Your task to perform on an android device: Search for sushi restaurants on Maps Image 0: 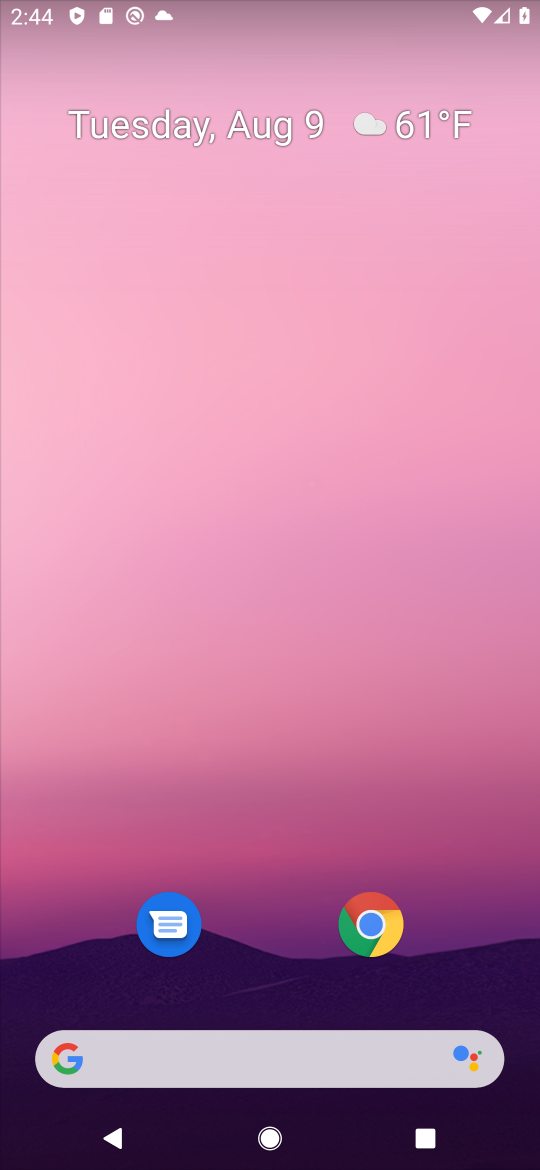
Step 0: drag from (277, 884) to (315, 0)
Your task to perform on an android device: Search for sushi restaurants on Maps Image 1: 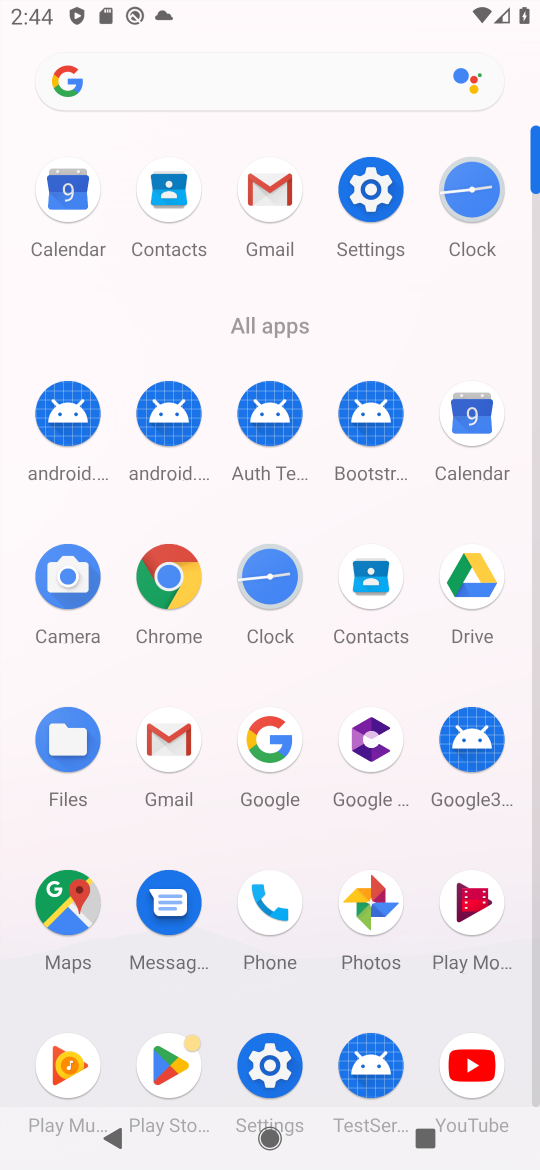
Step 1: click (75, 913)
Your task to perform on an android device: Search for sushi restaurants on Maps Image 2: 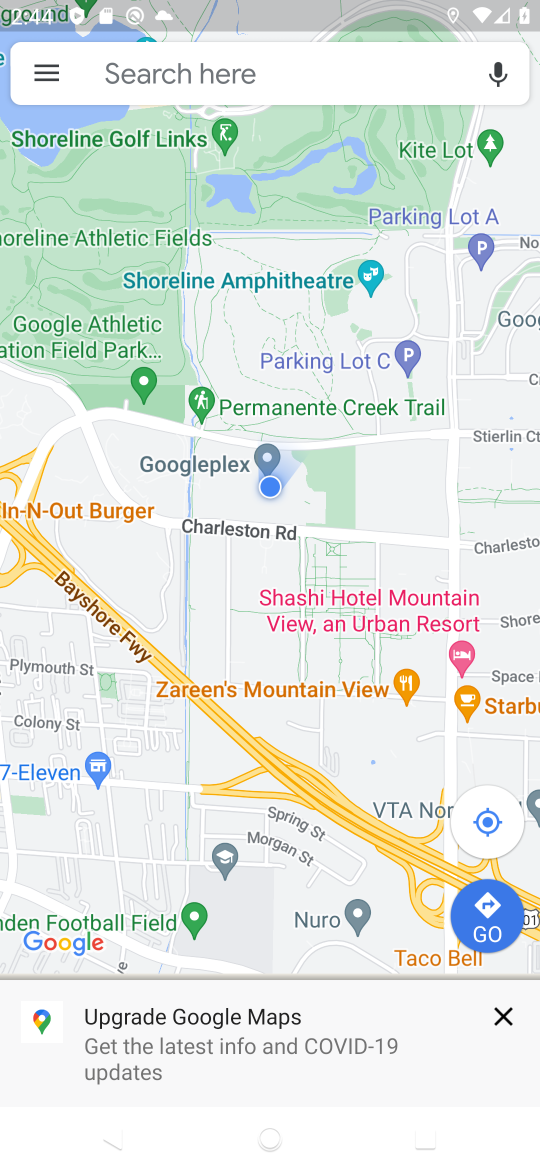
Step 2: click (335, 79)
Your task to perform on an android device: Search for sushi restaurants on Maps Image 3: 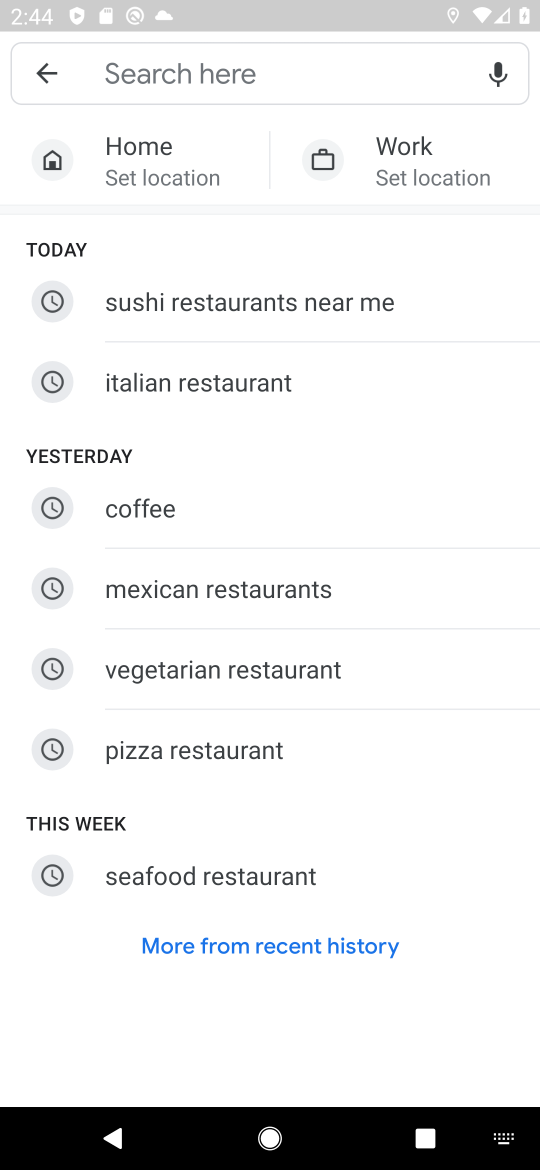
Step 3: click (279, 298)
Your task to perform on an android device: Search for sushi restaurants on Maps Image 4: 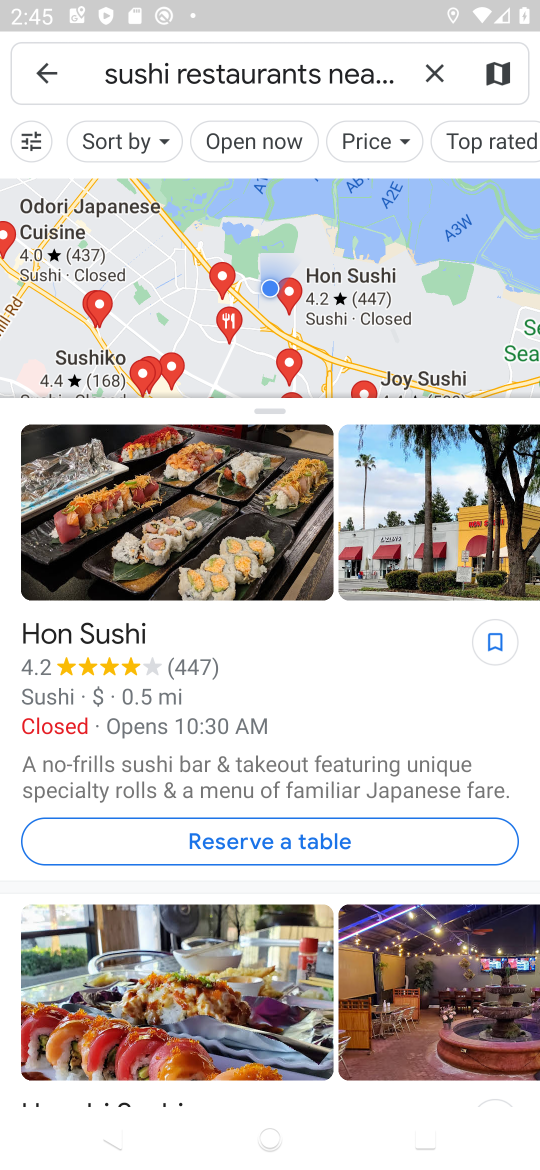
Step 4: task complete